Your task to perform on an android device: open wifi settings Image 0: 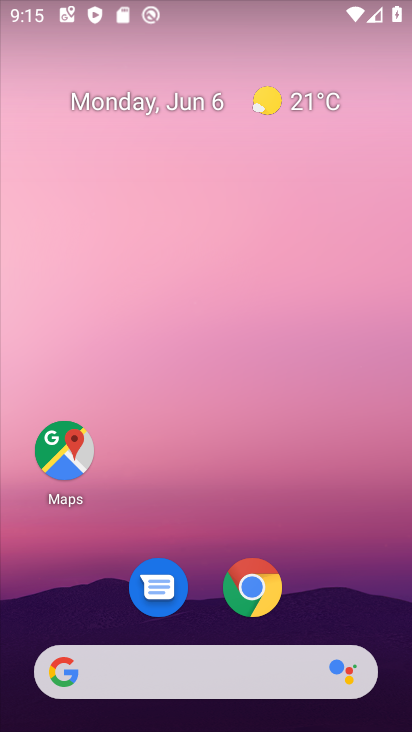
Step 0: click (275, 669)
Your task to perform on an android device: open wifi settings Image 1: 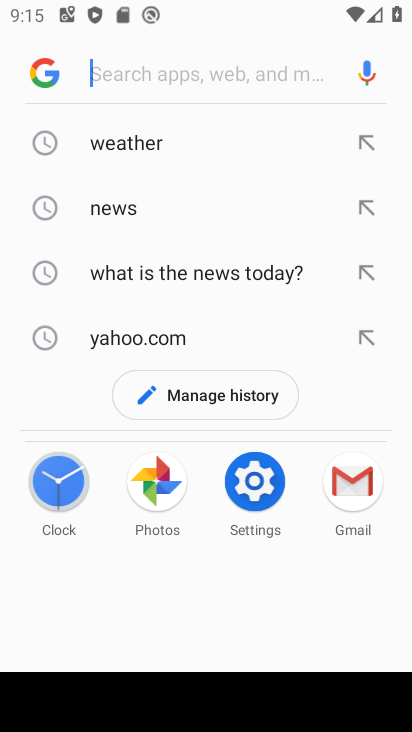
Step 1: press home button
Your task to perform on an android device: open wifi settings Image 2: 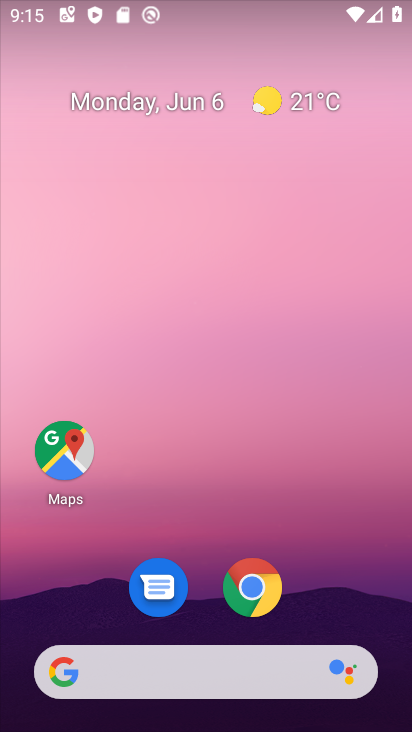
Step 2: drag from (200, 712) to (317, 5)
Your task to perform on an android device: open wifi settings Image 3: 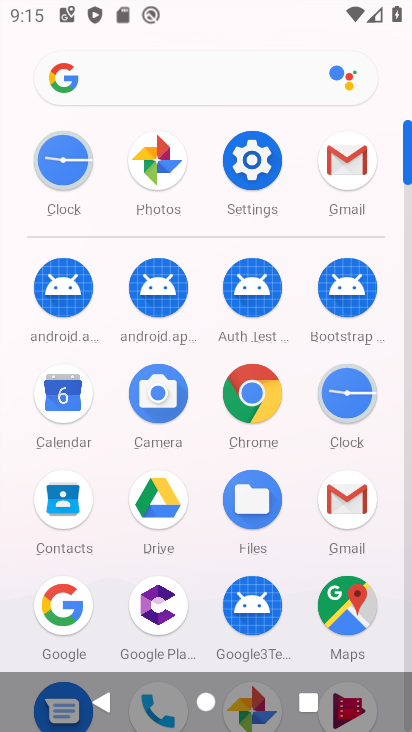
Step 3: click (258, 150)
Your task to perform on an android device: open wifi settings Image 4: 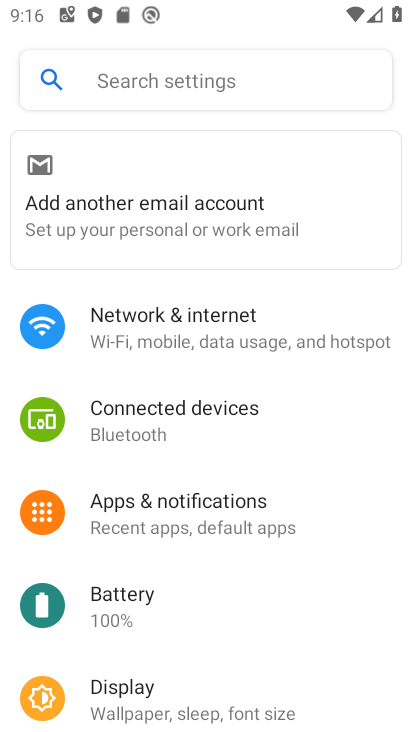
Step 4: click (288, 340)
Your task to perform on an android device: open wifi settings Image 5: 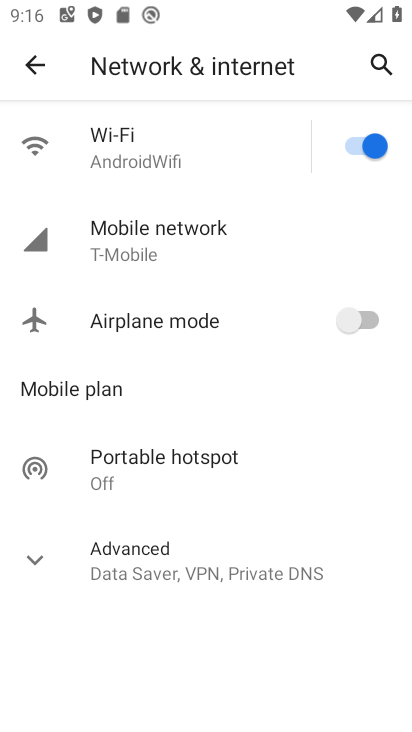
Step 5: click (213, 152)
Your task to perform on an android device: open wifi settings Image 6: 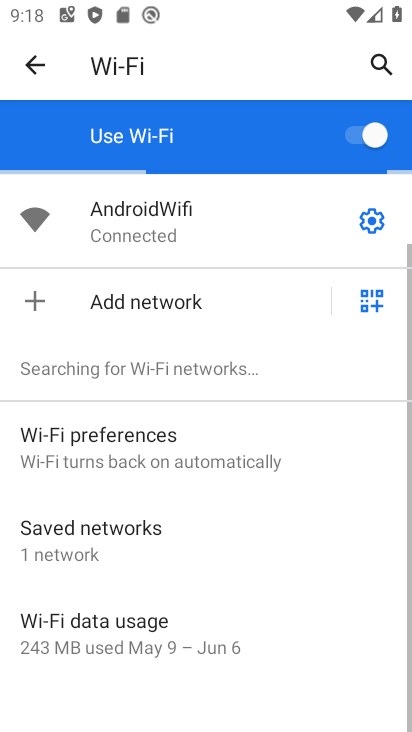
Step 6: click (371, 216)
Your task to perform on an android device: open wifi settings Image 7: 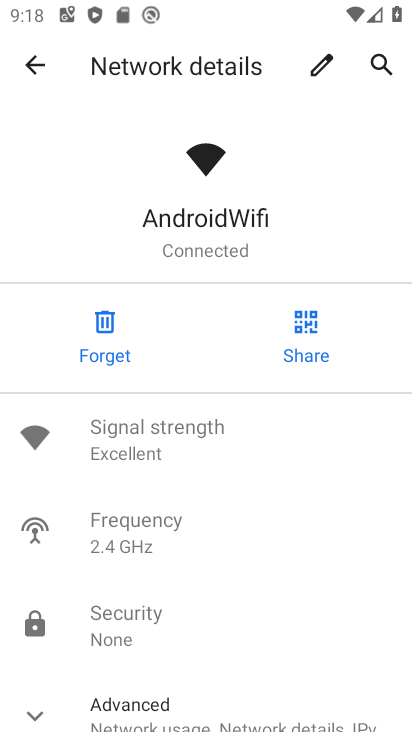
Step 7: task complete